Your task to perform on an android device: Go to Maps Image 0: 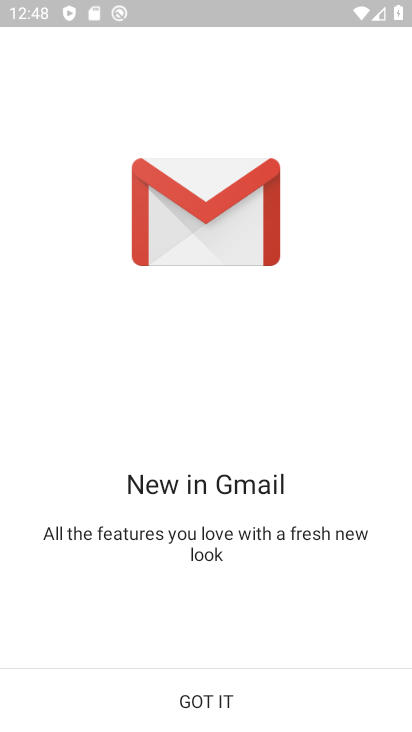
Step 0: press back button
Your task to perform on an android device: Go to Maps Image 1: 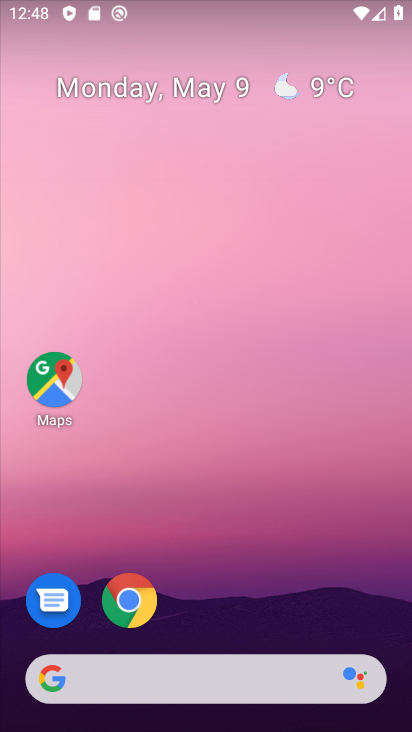
Step 1: click (50, 400)
Your task to perform on an android device: Go to Maps Image 2: 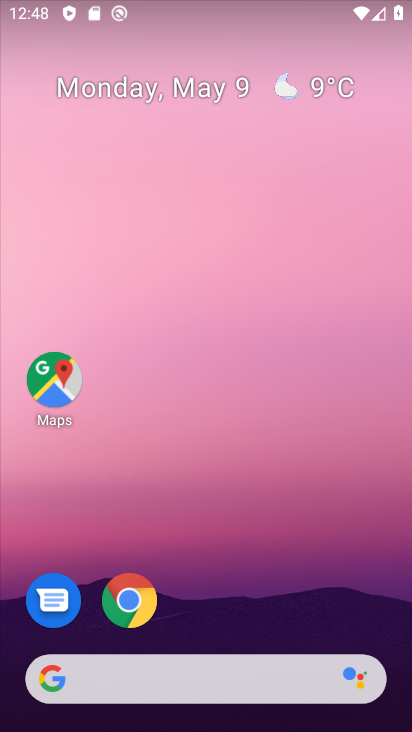
Step 2: click (50, 400)
Your task to perform on an android device: Go to Maps Image 3: 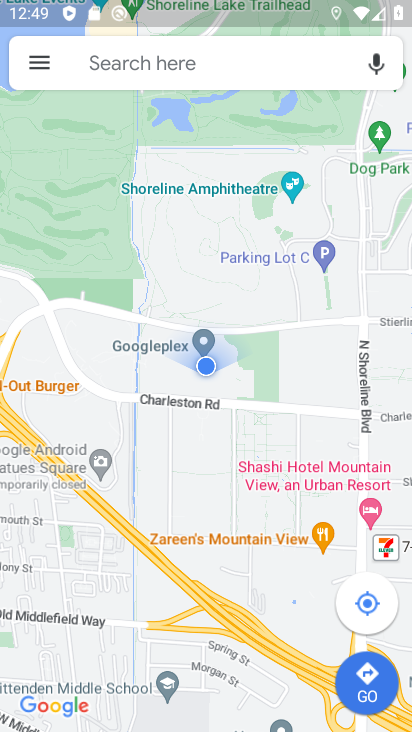
Step 3: task complete